Your task to perform on an android device: Go to privacy settings Image 0: 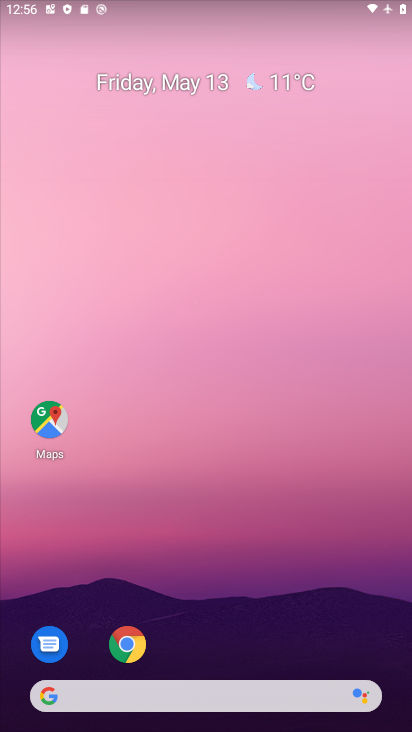
Step 0: drag from (230, 722) to (230, 242)
Your task to perform on an android device: Go to privacy settings Image 1: 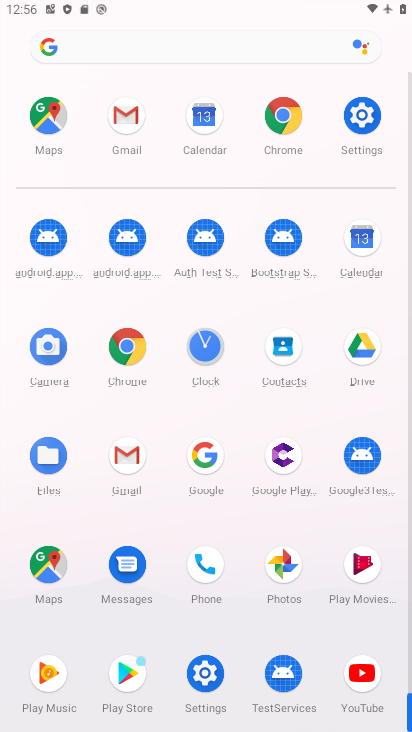
Step 1: click (365, 110)
Your task to perform on an android device: Go to privacy settings Image 2: 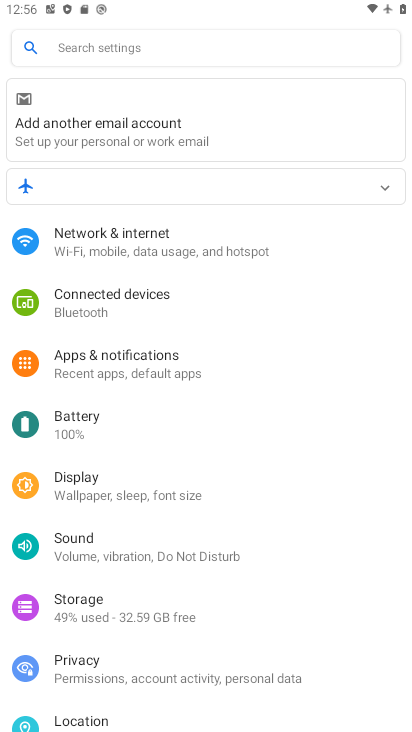
Step 2: click (90, 664)
Your task to perform on an android device: Go to privacy settings Image 3: 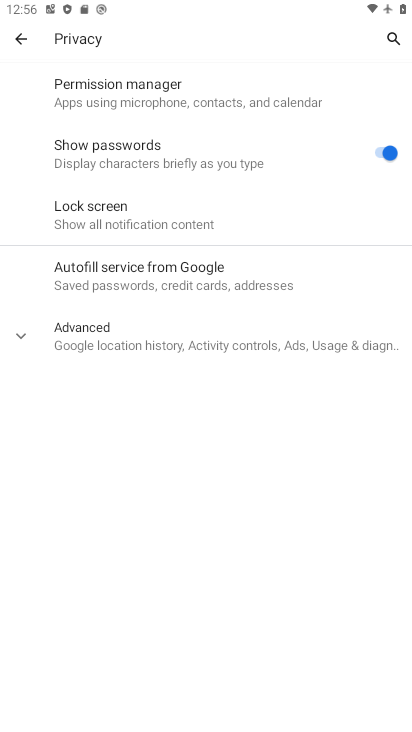
Step 3: task complete